Your task to perform on an android device: set the timer Image 0: 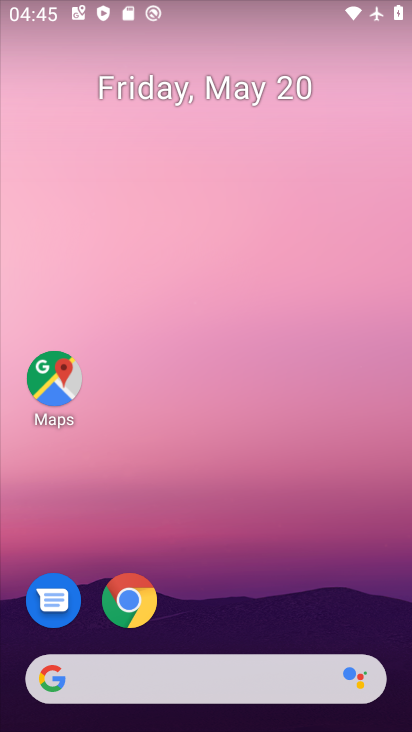
Step 0: drag from (334, 516) to (311, 44)
Your task to perform on an android device: set the timer Image 1: 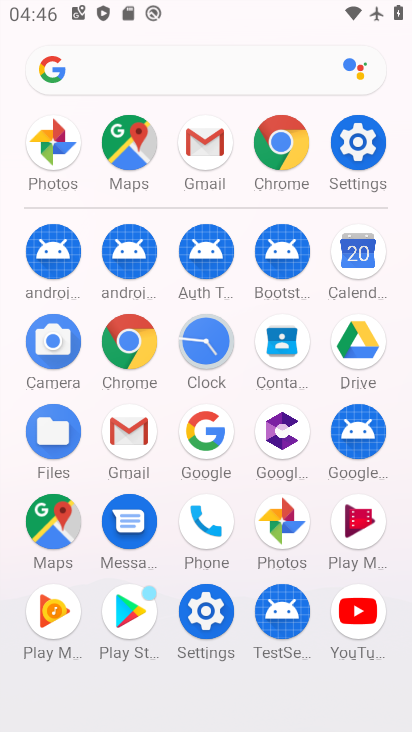
Step 1: drag from (8, 520) to (23, 236)
Your task to perform on an android device: set the timer Image 2: 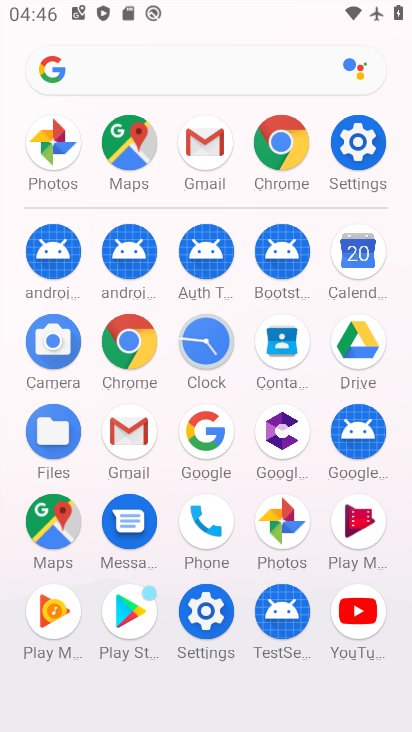
Step 2: click (207, 341)
Your task to perform on an android device: set the timer Image 3: 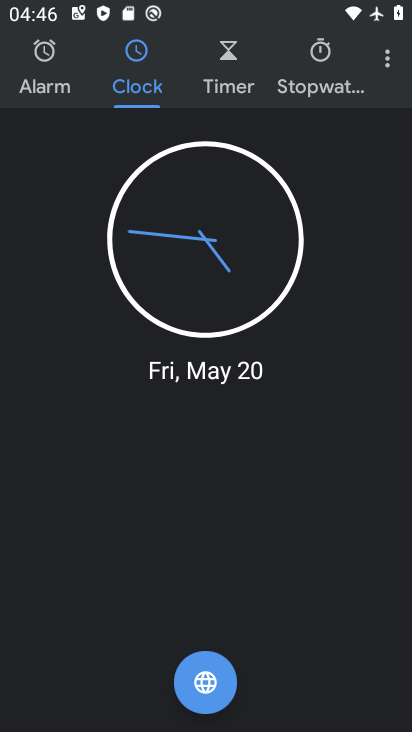
Step 3: click (254, 58)
Your task to perform on an android device: set the timer Image 4: 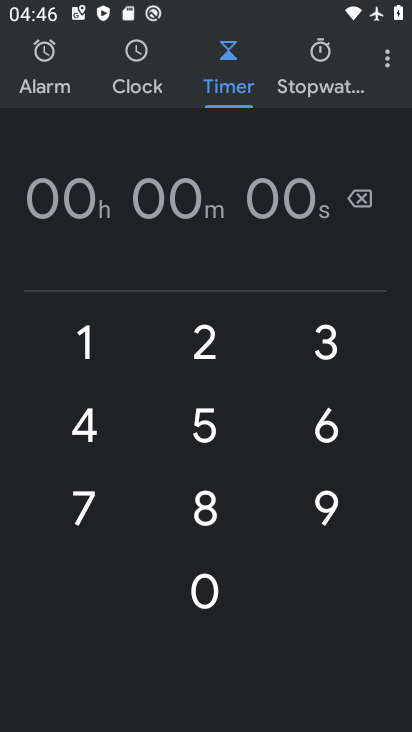
Step 4: click (205, 365)
Your task to perform on an android device: set the timer Image 5: 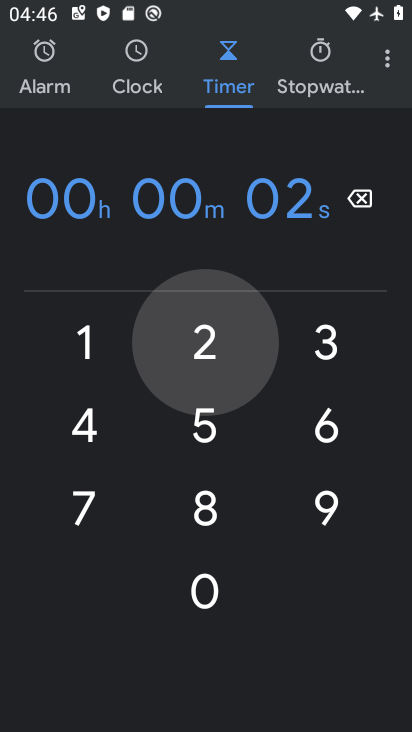
Step 5: click (200, 437)
Your task to perform on an android device: set the timer Image 6: 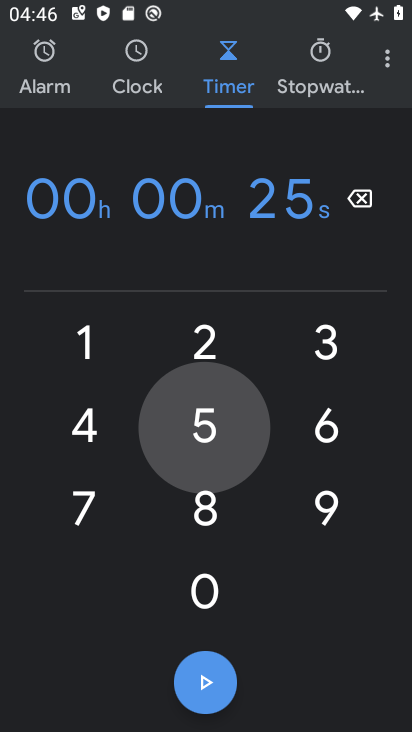
Step 6: click (111, 441)
Your task to perform on an android device: set the timer Image 7: 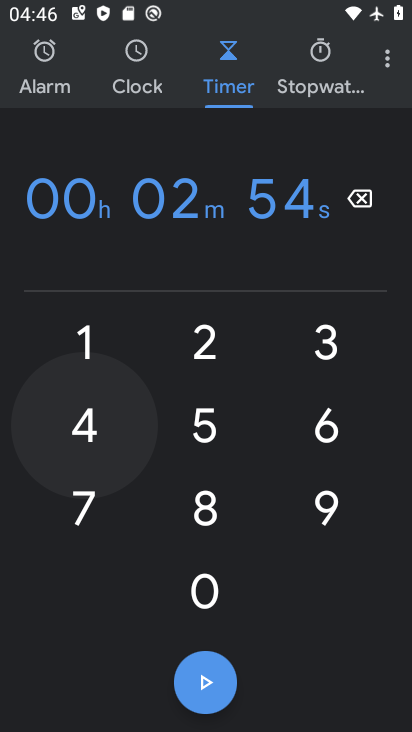
Step 7: click (84, 510)
Your task to perform on an android device: set the timer Image 8: 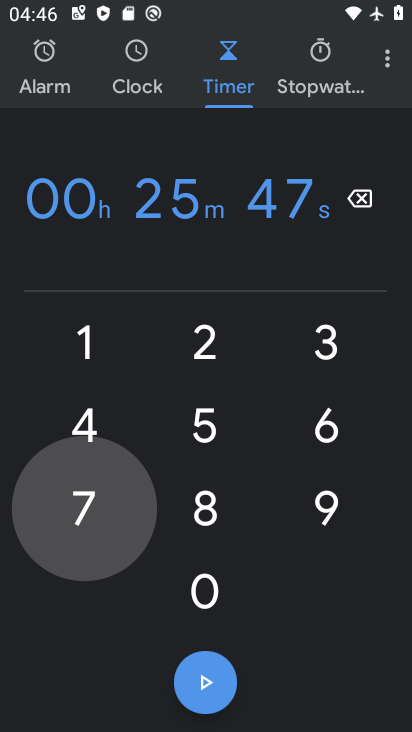
Step 8: click (202, 515)
Your task to perform on an android device: set the timer Image 9: 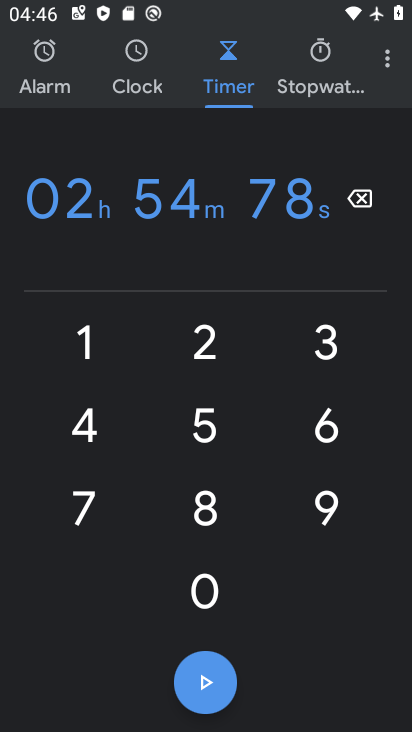
Step 9: click (202, 681)
Your task to perform on an android device: set the timer Image 10: 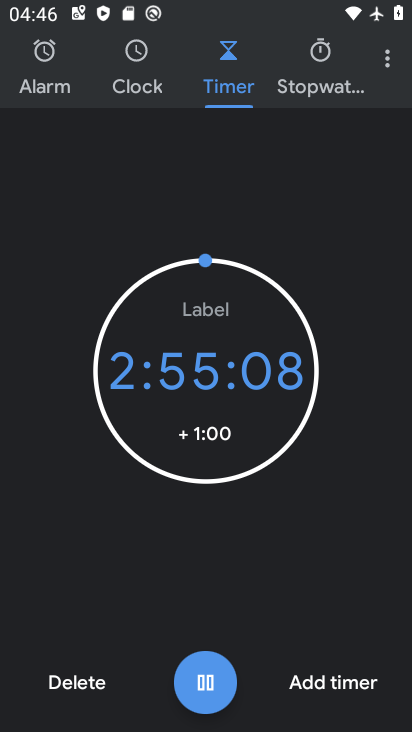
Step 10: task complete